Your task to perform on an android device: Go to network settings Image 0: 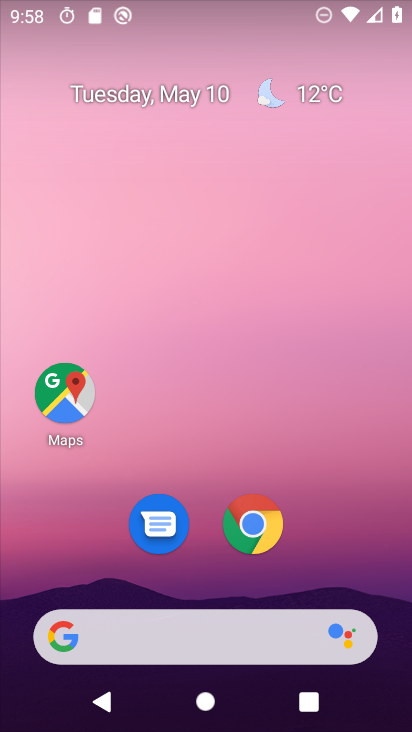
Step 0: drag from (358, 459) to (281, 54)
Your task to perform on an android device: Go to network settings Image 1: 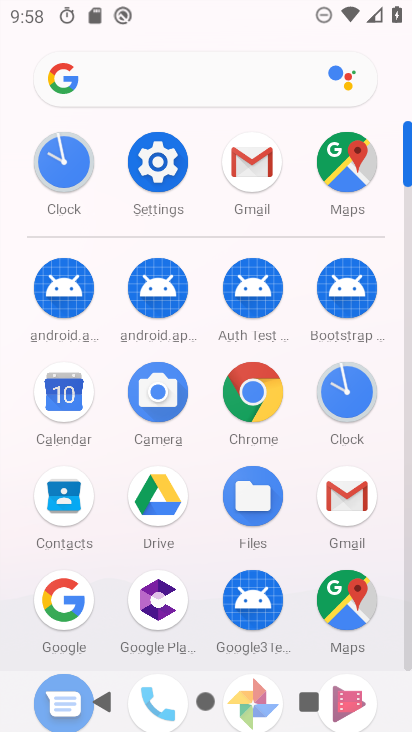
Step 1: click (171, 151)
Your task to perform on an android device: Go to network settings Image 2: 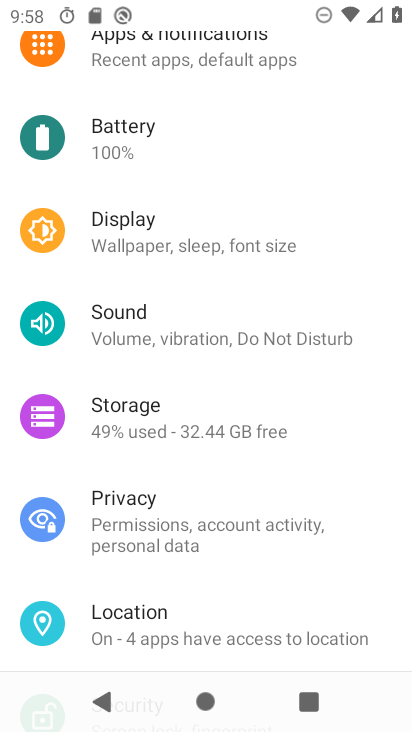
Step 2: drag from (196, 124) to (264, 556)
Your task to perform on an android device: Go to network settings Image 3: 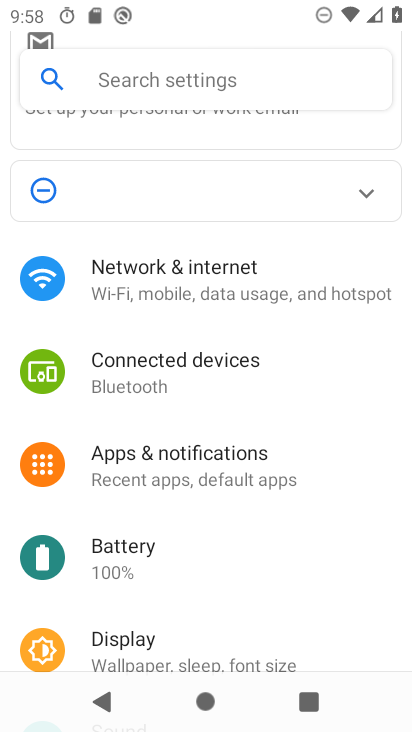
Step 3: click (189, 290)
Your task to perform on an android device: Go to network settings Image 4: 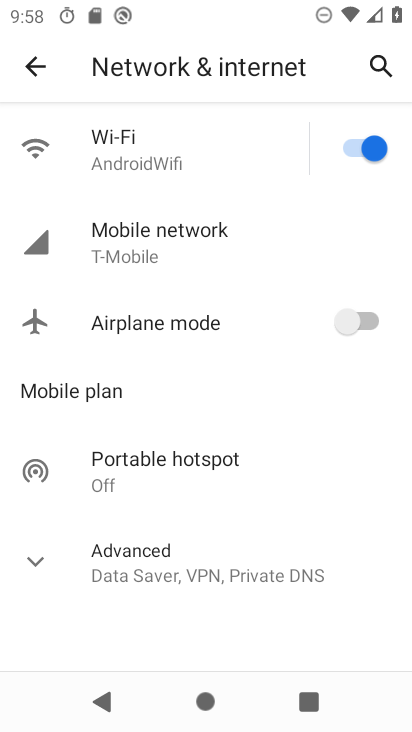
Step 4: task complete